Your task to perform on an android device: Open wifi settings Image 0: 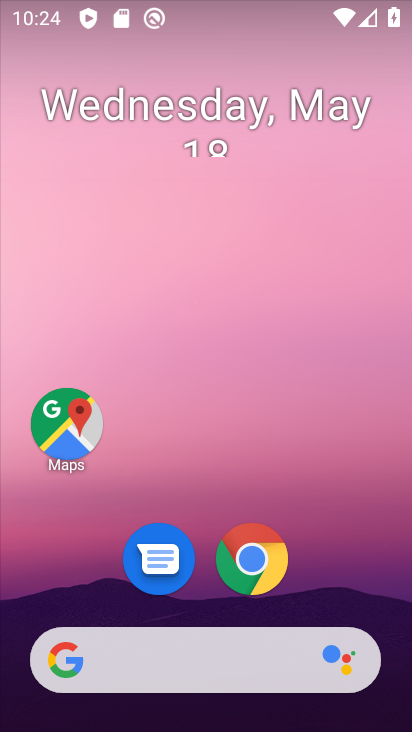
Step 0: drag from (173, 591) to (167, 212)
Your task to perform on an android device: Open wifi settings Image 1: 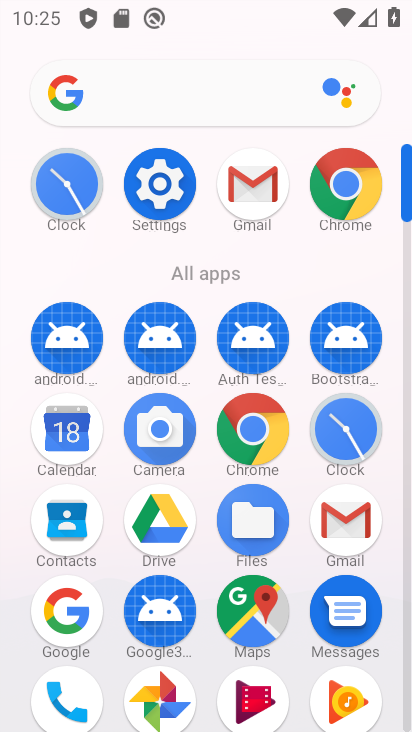
Step 1: click (160, 197)
Your task to perform on an android device: Open wifi settings Image 2: 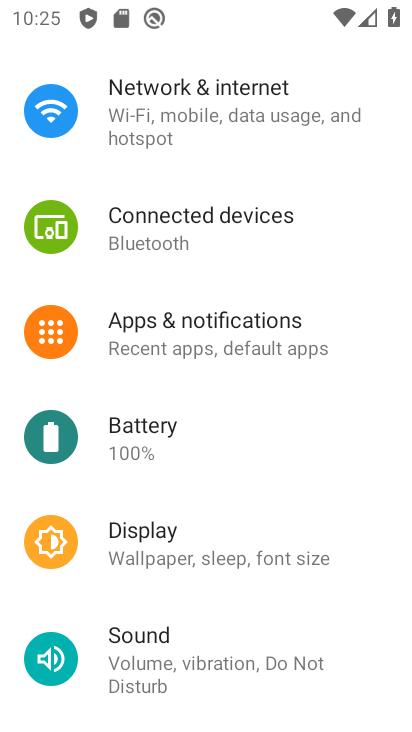
Step 2: click (158, 121)
Your task to perform on an android device: Open wifi settings Image 3: 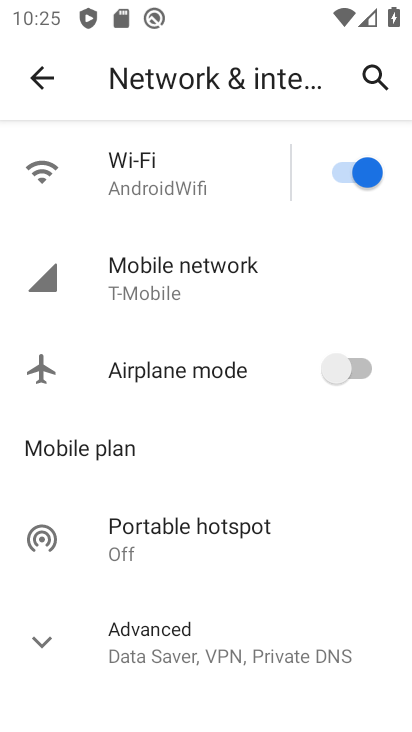
Step 3: click (176, 173)
Your task to perform on an android device: Open wifi settings Image 4: 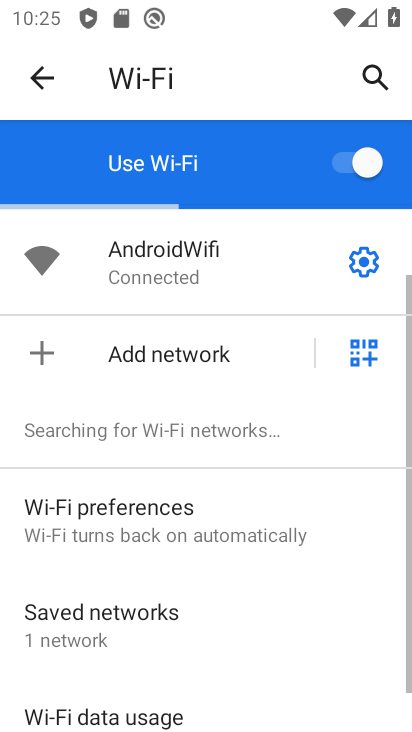
Step 4: task complete